Your task to perform on an android device: turn vacation reply on in the gmail app Image 0: 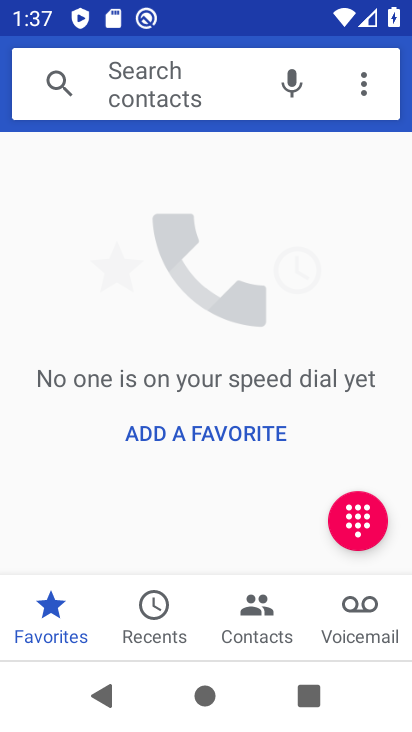
Step 0: press home button
Your task to perform on an android device: turn vacation reply on in the gmail app Image 1: 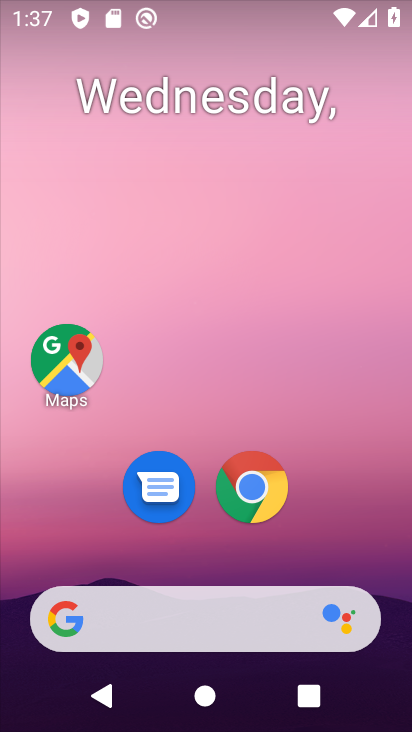
Step 1: drag from (334, 507) to (239, 70)
Your task to perform on an android device: turn vacation reply on in the gmail app Image 2: 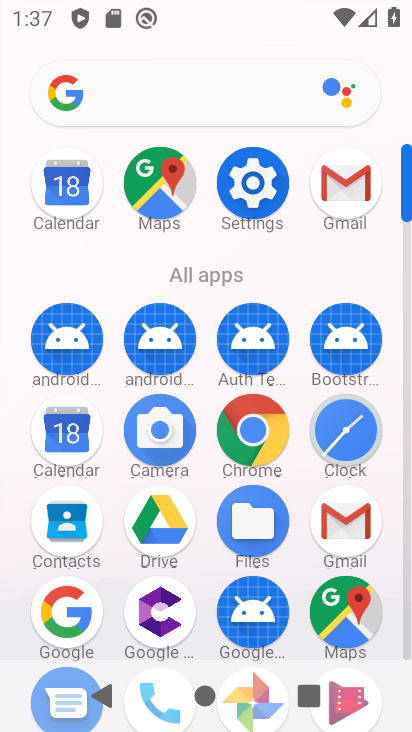
Step 2: click (337, 191)
Your task to perform on an android device: turn vacation reply on in the gmail app Image 3: 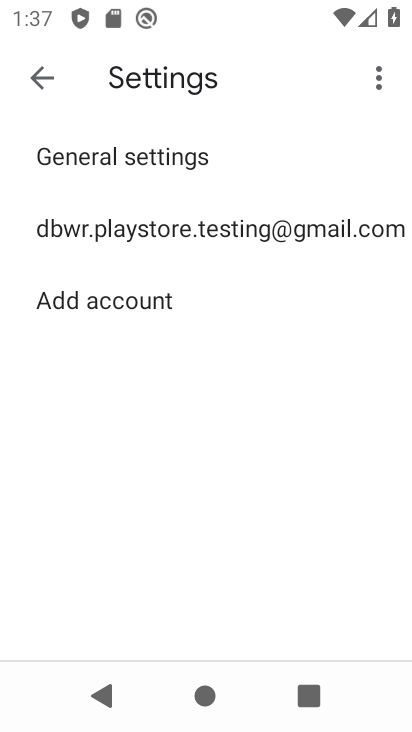
Step 3: click (196, 229)
Your task to perform on an android device: turn vacation reply on in the gmail app Image 4: 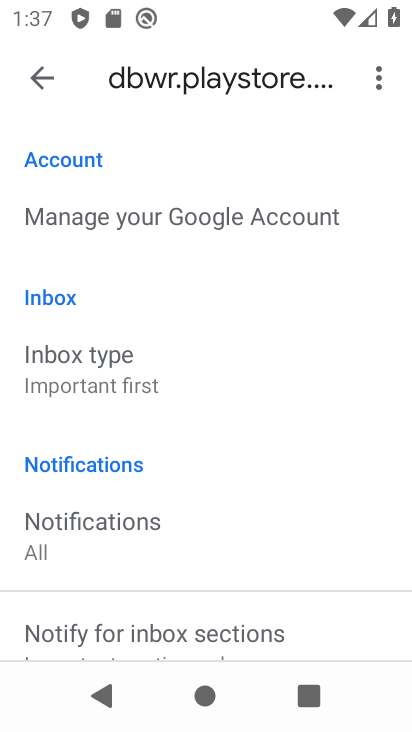
Step 4: drag from (250, 498) to (183, 150)
Your task to perform on an android device: turn vacation reply on in the gmail app Image 5: 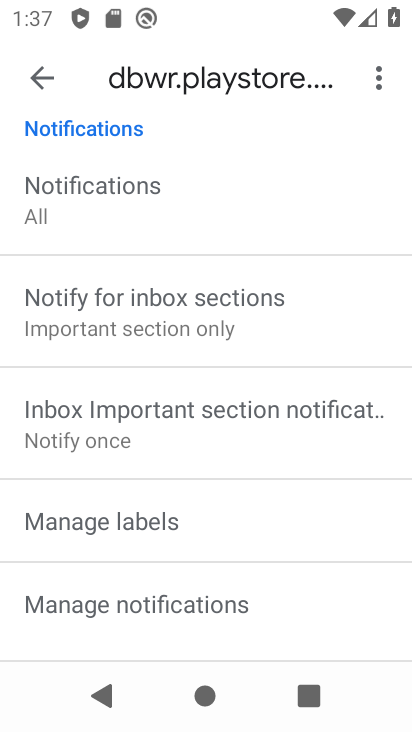
Step 5: drag from (209, 521) to (153, 197)
Your task to perform on an android device: turn vacation reply on in the gmail app Image 6: 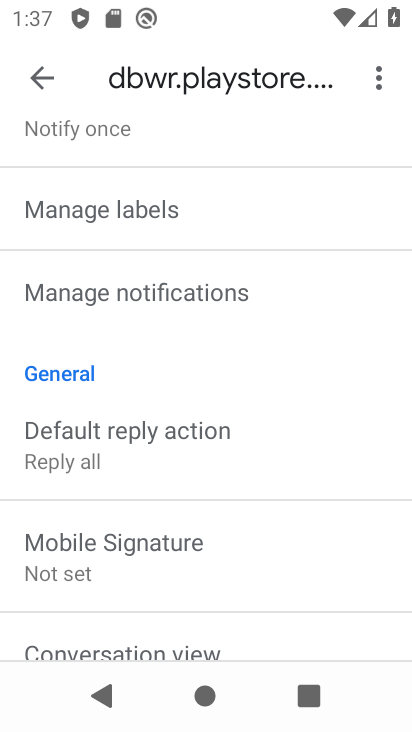
Step 6: drag from (181, 576) to (125, 249)
Your task to perform on an android device: turn vacation reply on in the gmail app Image 7: 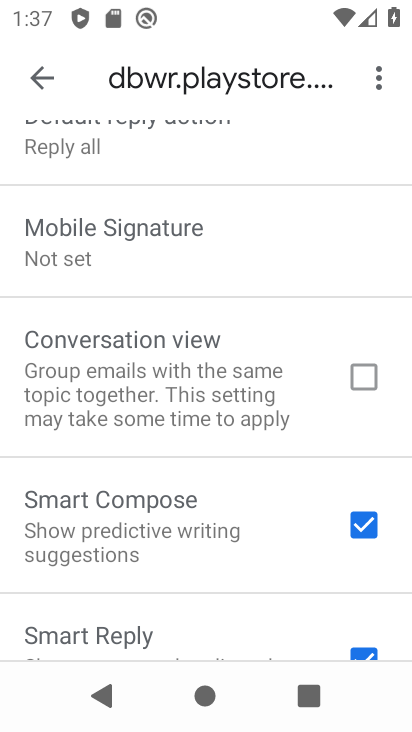
Step 7: drag from (265, 610) to (220, 346)
Your task to perform on an android device: turn vacation reply on in the gmail app Image 8: 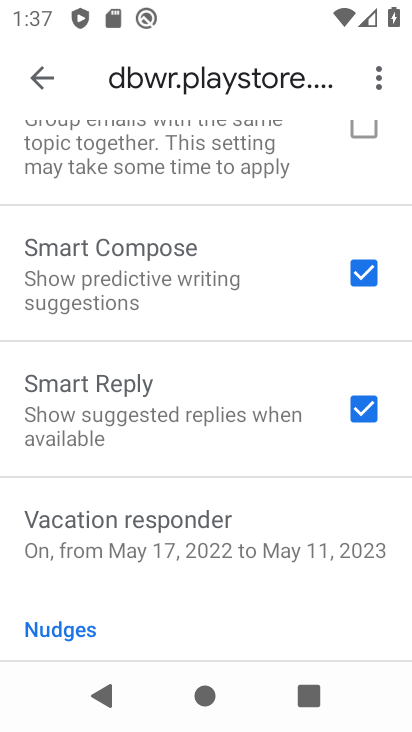
Step 8: click (154, 523)
Your task to perform on an android device: turn vacation reply on in the gmail app Image 9: 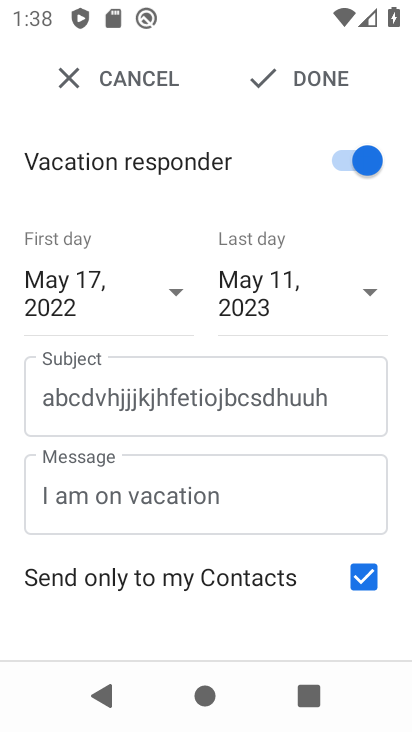
Step 9: task complete